Your task to perform on an android device: Find coffee shops on Maps Image 0: 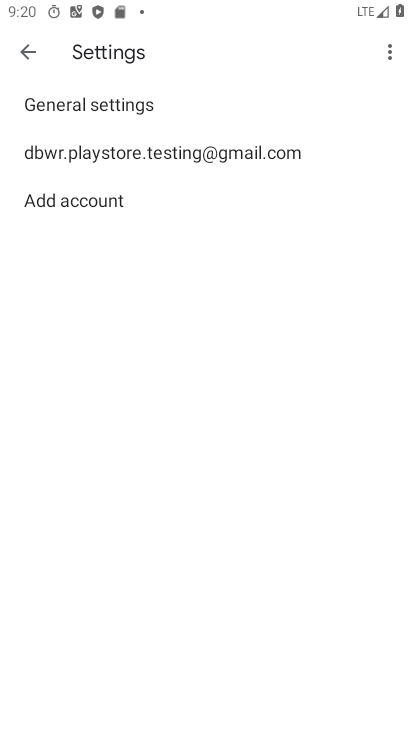
Step 0: press back button
Your task to perform on an android device: Find coffee shops on Maps Image 1: 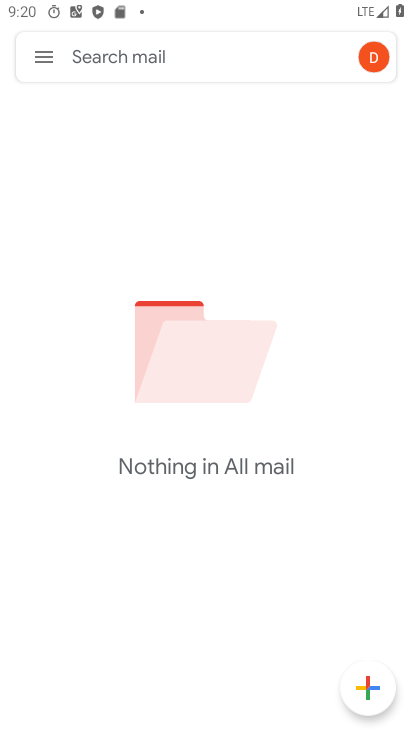
Step 1: press back button
Your task to perform on an android device: Find coffee shops on Maps Image 2: 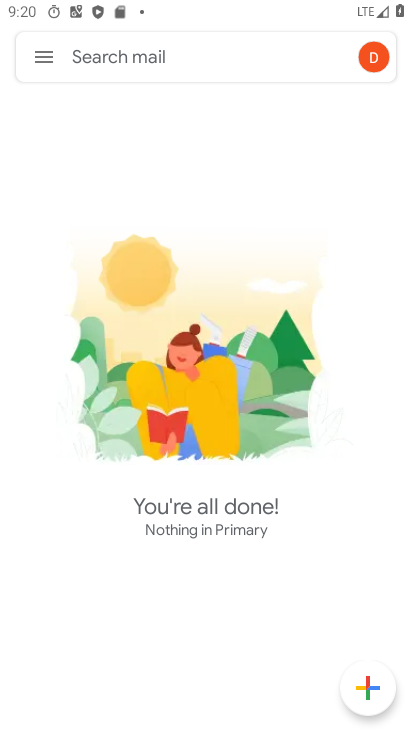
Step 2: press back button
Your task to perform on an android device: Find coffee shops on Maps Image 3: 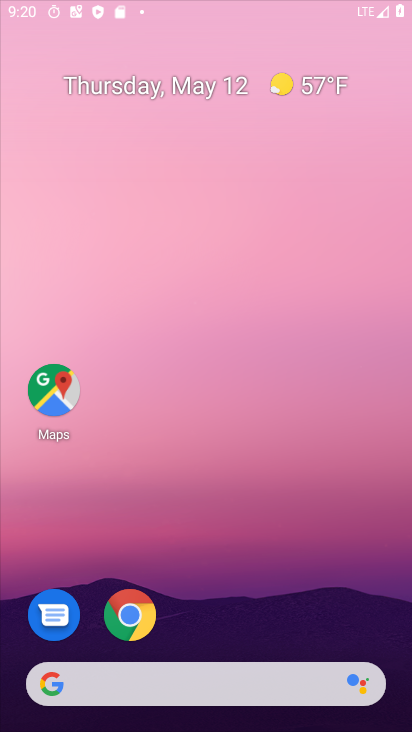
Step 3: press home button
Your task to perform on an android device: Find coffee shops on Maps Image 4: 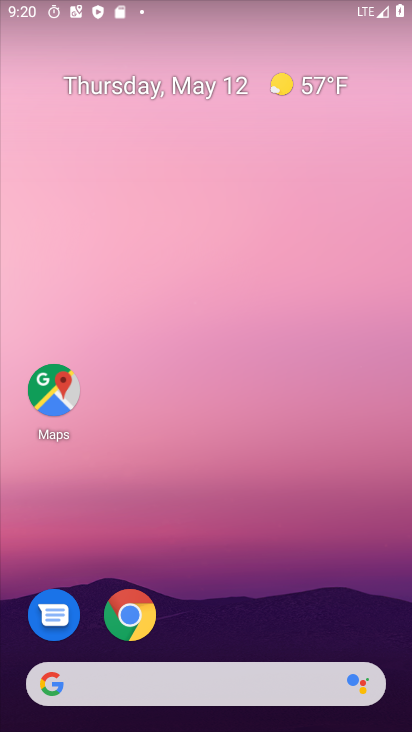
Step 4: click (52, 382)
Your task to perform on an android device: Find coffee shops on Maps Image 5: 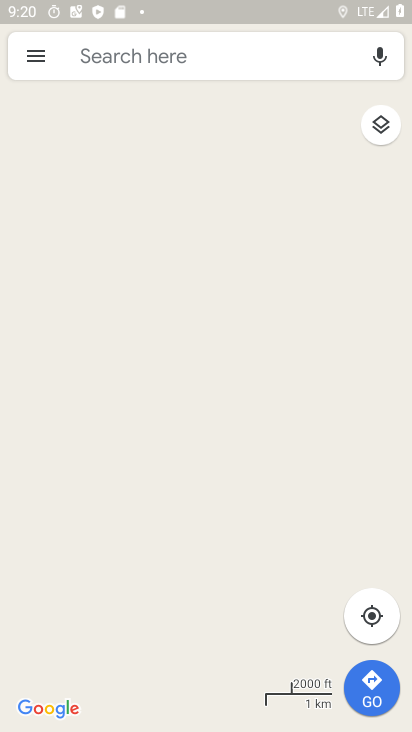
Step 5: click (229, 55)
Your task to perform on an android device: Find coffee shops on Maps Image 6: 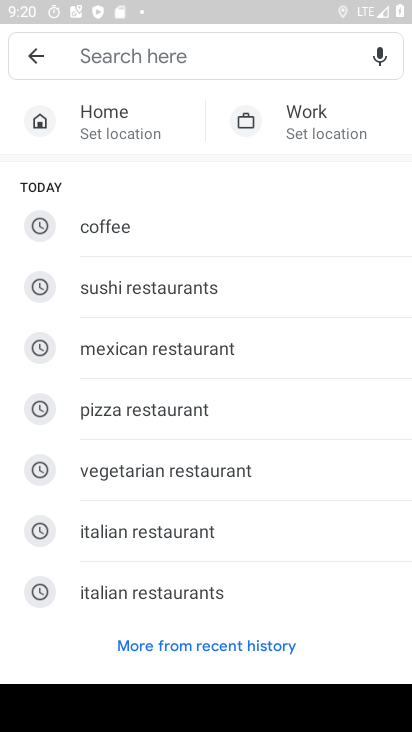
Step 6: click (140, 222)
Your task to perform on an android device: Find coffee shops on Maps Image 7: 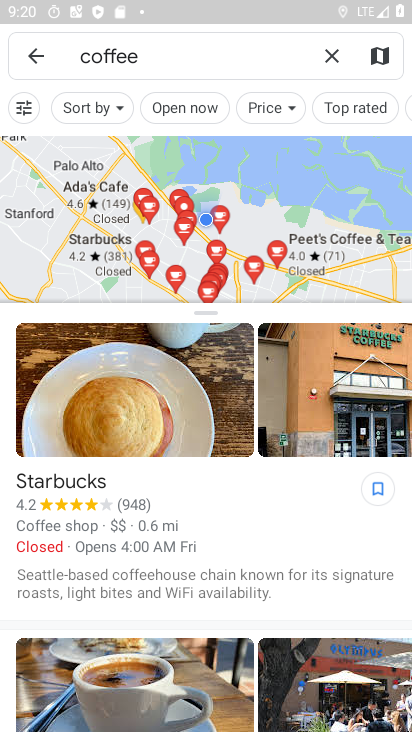
Step 7: task complete